Your task to perform on an android device: Open Chrome and go to the settings page Image 0: 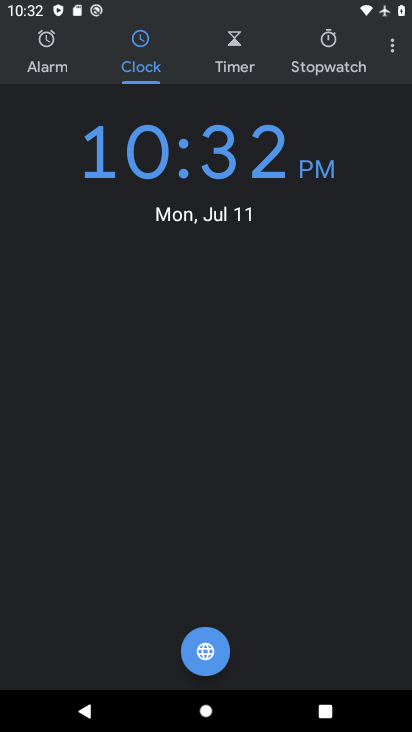
Step 0: press home button
Your task to perform on an android device: Open Chrome and go to the settings page Image 1: 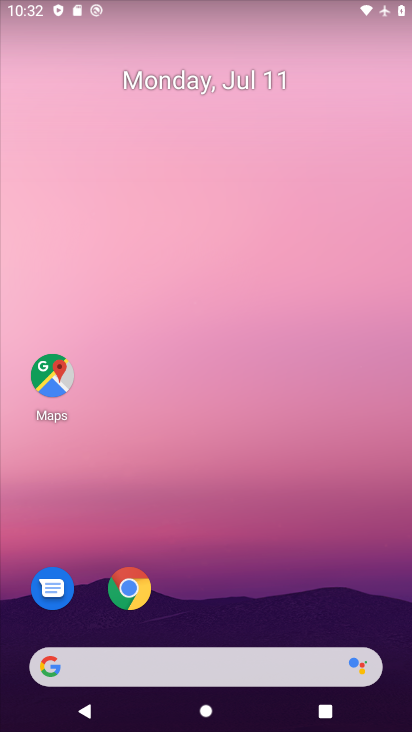
Step 1: click (128, 596)
Your task to perform on an android device: Open Chrome and go to the settings page Image 2: 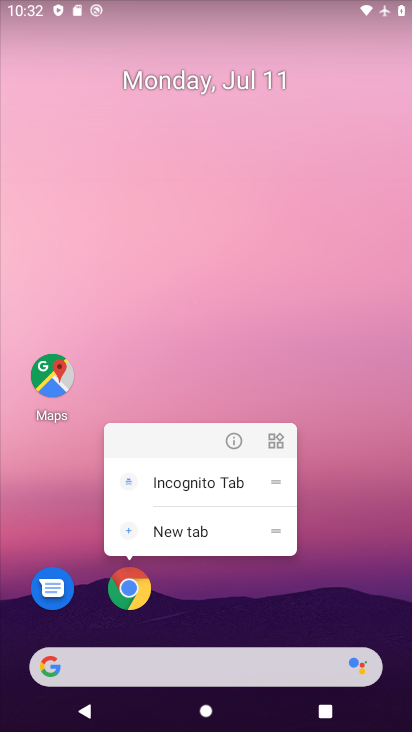
Step 2: click (124, 591)
Your task to perform on an android device: Open Chrome and go to the settings page Image 3: 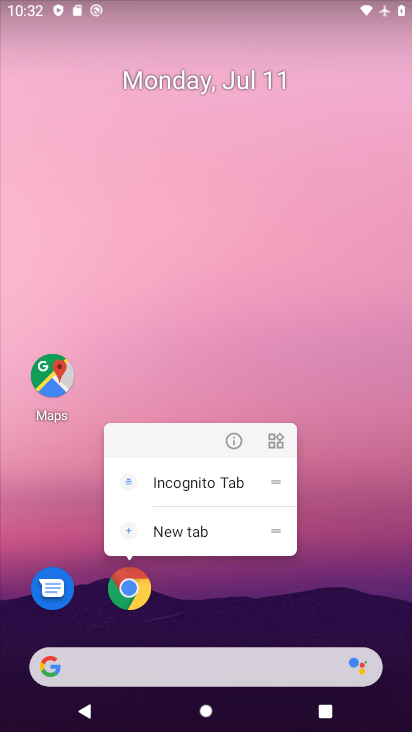
Step 3: click (132, 585)
Your task to perform on an android device: Open Chrome and go to the settings page Image 4: 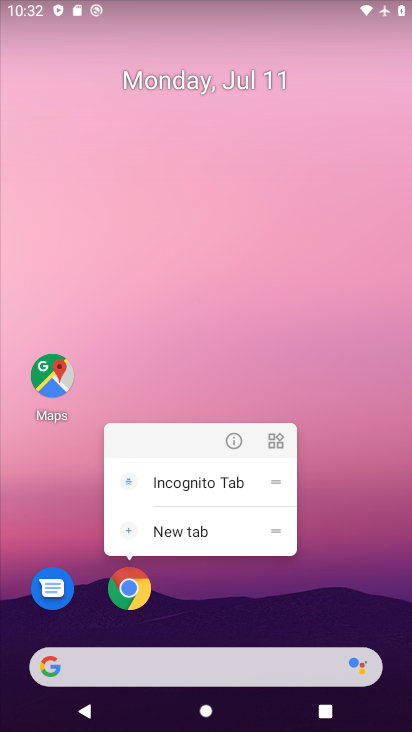
Step 4: click (132, 591)
Your task to perform on an android device: Open Chrome and go to the settings page Image 5: 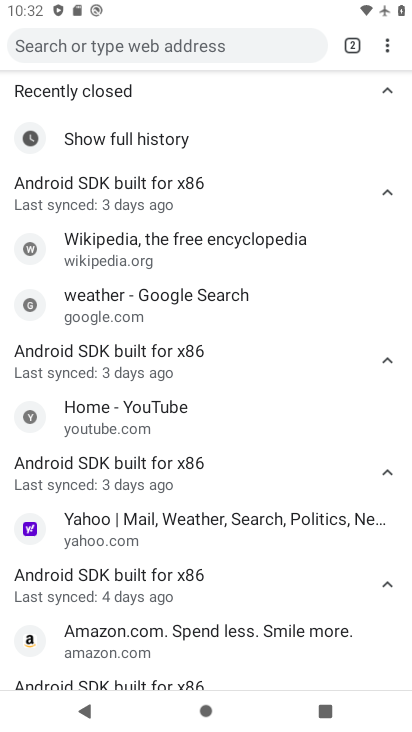
Step 5: task complete